Your task to perform on an android device: open app "Paramount+ | Peak Streaming" Image 0: 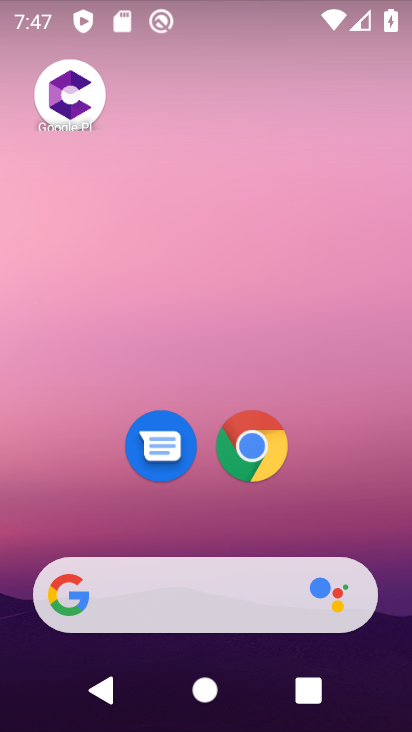
Step 0: drag from (182, 505) to (154, 160)
Your task to perform on an android device: open app "Paramount+ | Peak Streaming" Image 1: 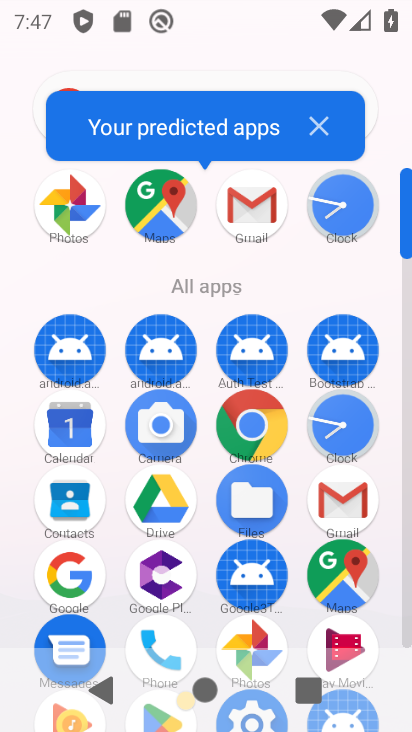
Step 1: drag from (197, 557) to (223, 215)
Your task to perform on an android device: open app "Paramount+ | Peak Streaming" Image 2: 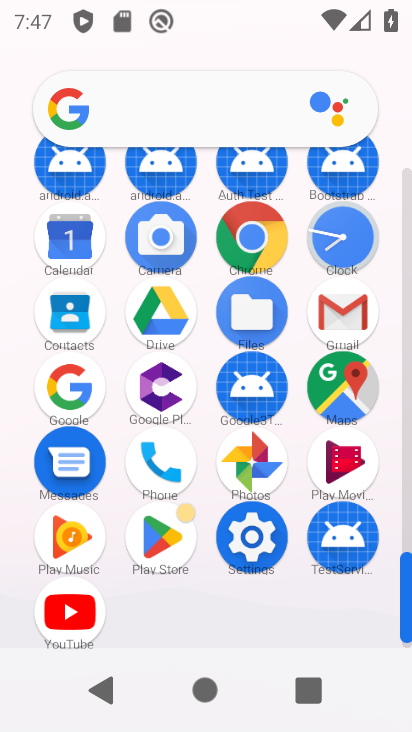
Step 2: click (149, 537)
Your task to perform on an android device: open app "Paramount+ | Peak Streaming" Image 3: 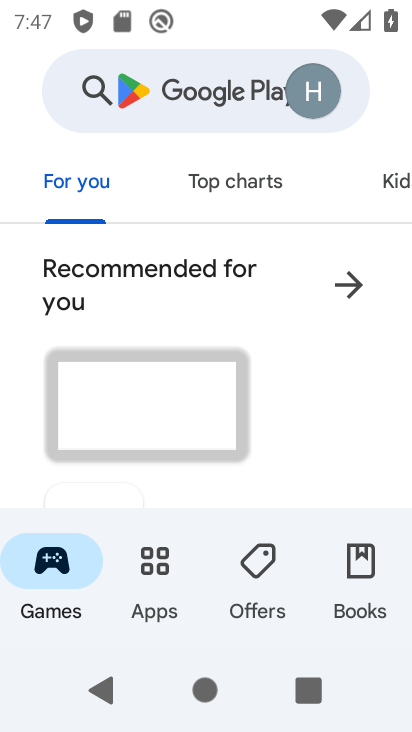
Step 3: click (177, 80)
Your task to perform on an android device: open app "Paramount+ | Peak Streaming" Image 4: 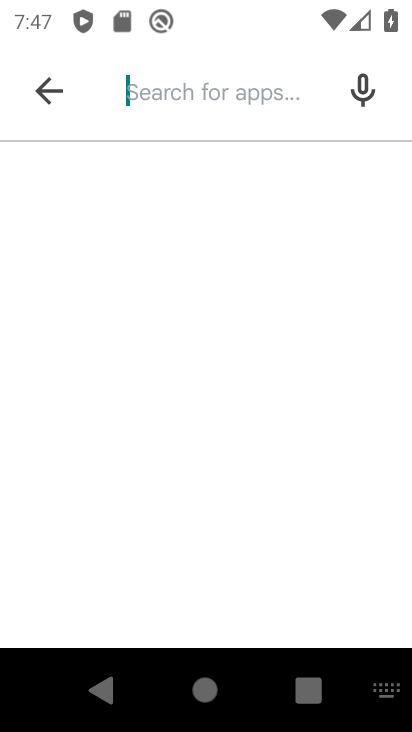
Step 4: type "Paramount+ | Peak Streaming"
Your task to perform on an android device: open app "Paramount+ | Peak Streaming" Image 5: 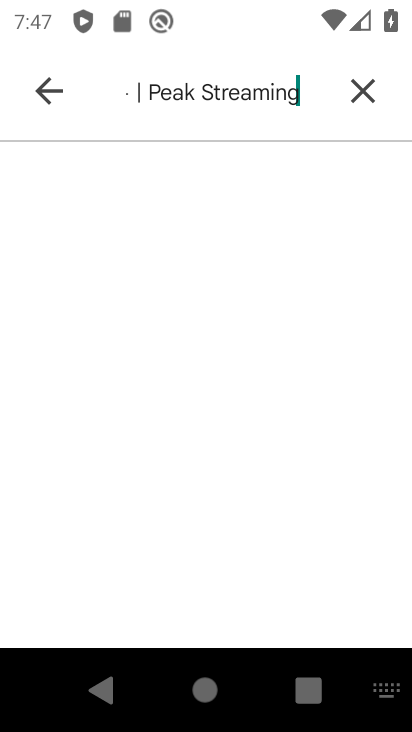
Step 5: type ""
Your task to perform on an android device: open app "Paramount+ | Peak Streaming" Image 6: 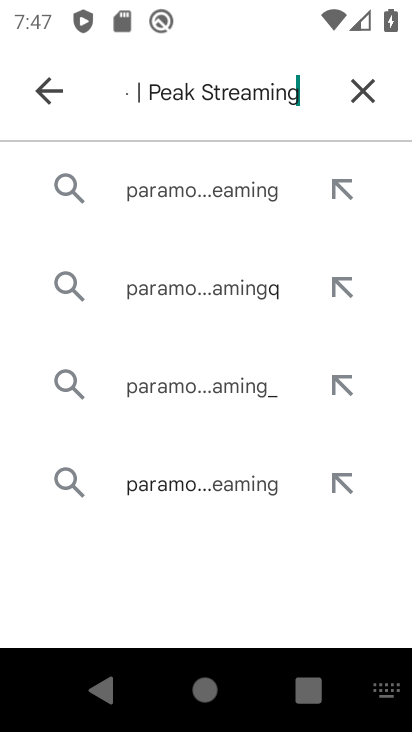
Step 6: click (199, 199)
Your task to perform on an android device: open app "Paramount+ | Peak Streaming" Image 7: 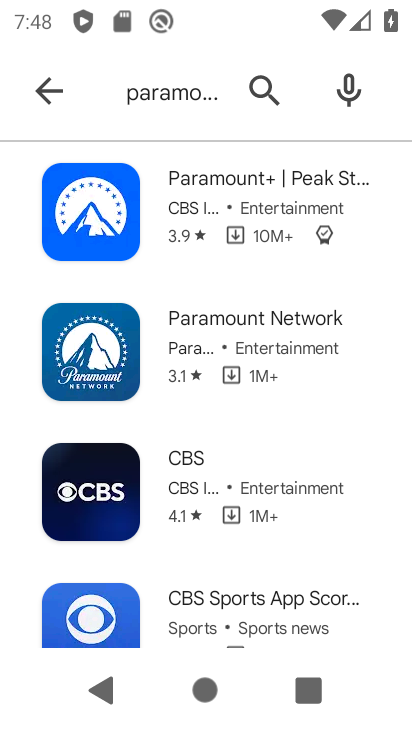
Step 7: click (199, 199)
Your task to perform on an android device: open app "Paramount+ | Peak Streaming" Image 8: 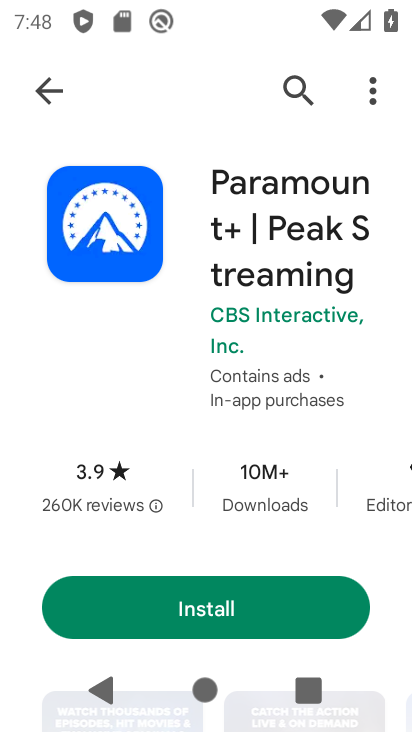
Step 8: task complete